Your task to perform on an android device: Go to network settings Image 0: 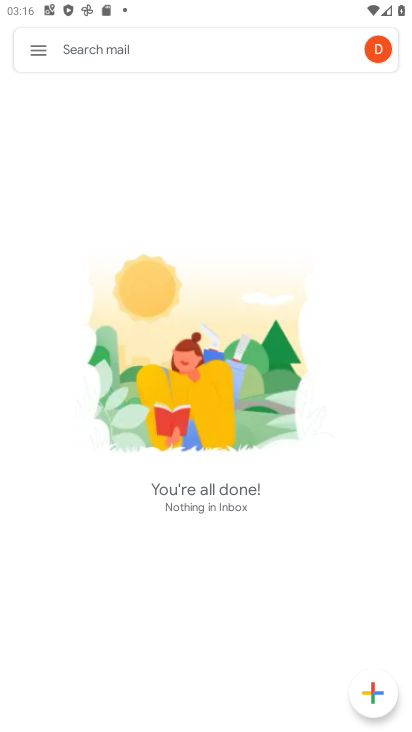
Step 0: press home button
Your task to perform on an android device: Go to network settings Image 1: 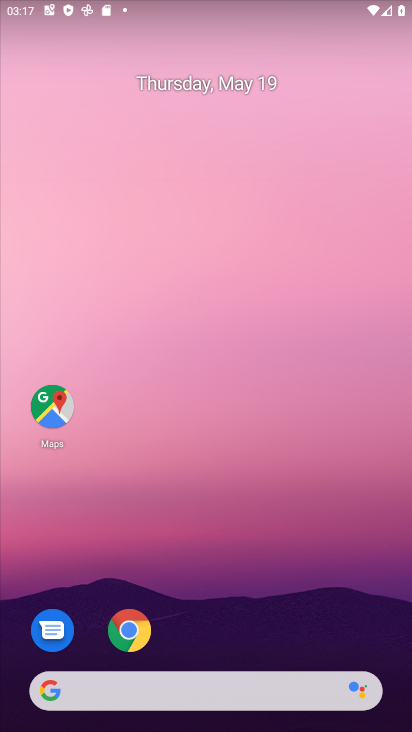
Step 1: drag from (390, 634) to (326, 47)
Your task to perform on an android device: Go to network settings Image 2: 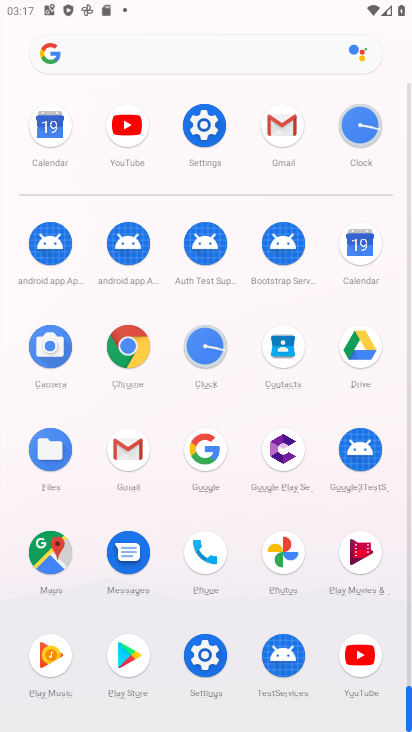
Step 2: click (202, 655)
Your task to perform on an android device: Go to network settings Image 3: 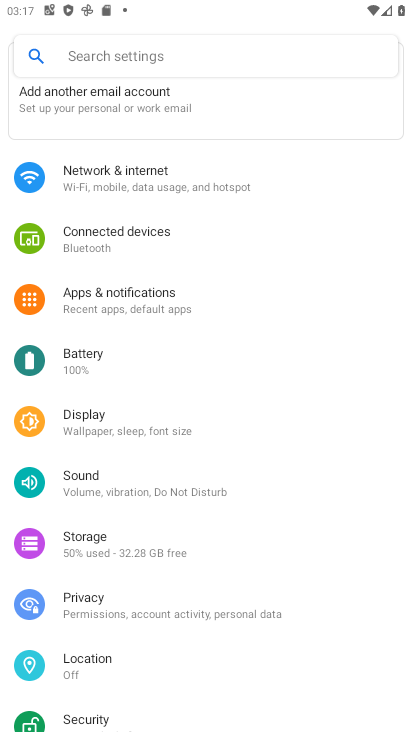
Step 3: click (96, 170)
Your task to perform on an android device: Go to network settings Image 4: 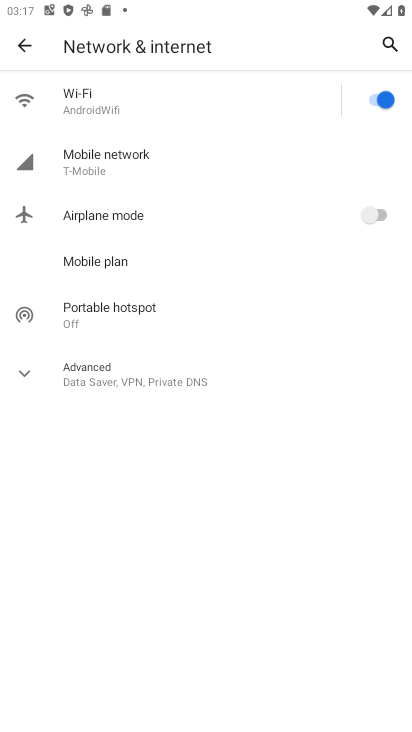
Step 4: click (88, 152)
Your task to perform on an android device: Go to network settings Image 5: 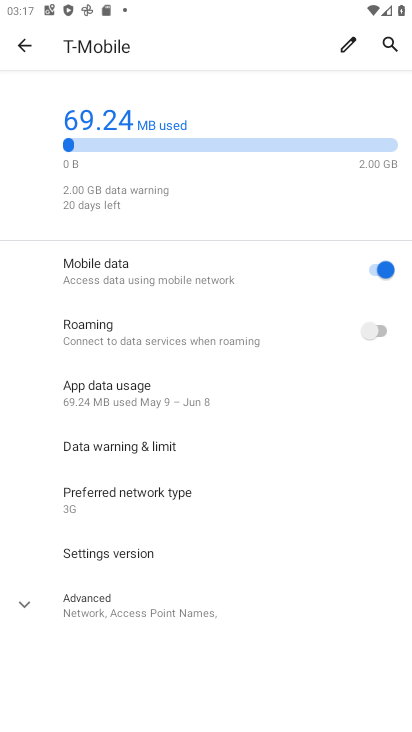
Step 5: task complete